Your task to perform on an android device: open app "Facebook" Image 0: 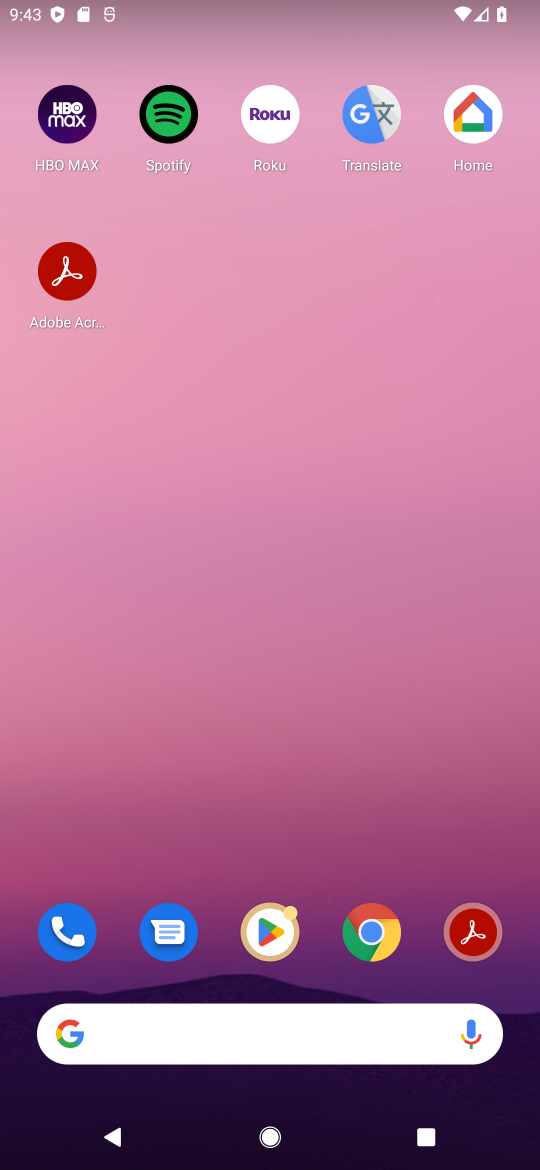
Step 0: click (282, 941)
Your task to perform on an android device: open app "Facebook" Image 1: 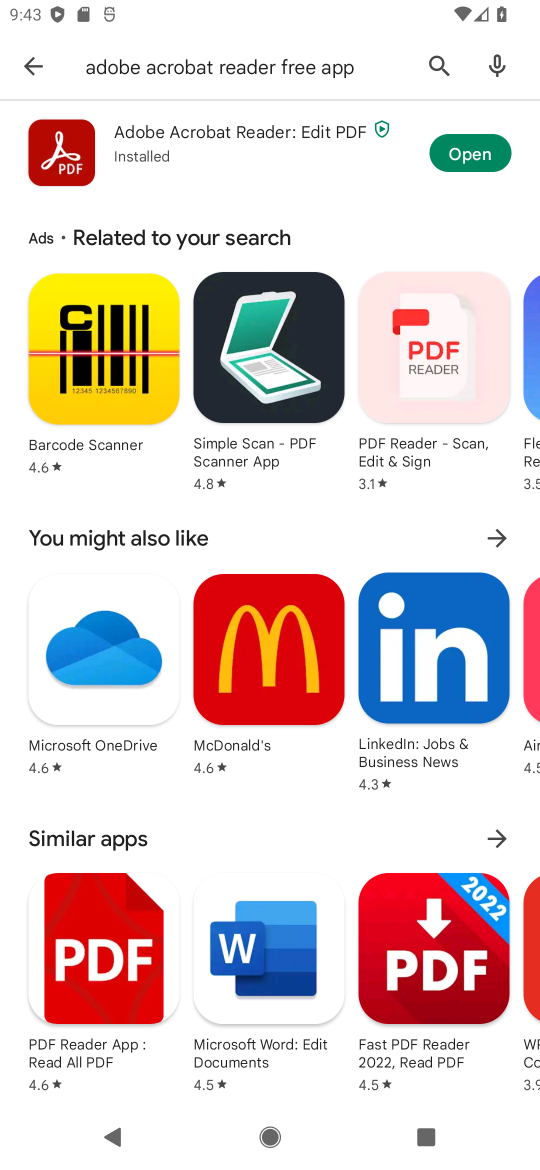
Step 1: click (430, 51)
Your task to perform on an android device: open app "Facebook" Image 2: 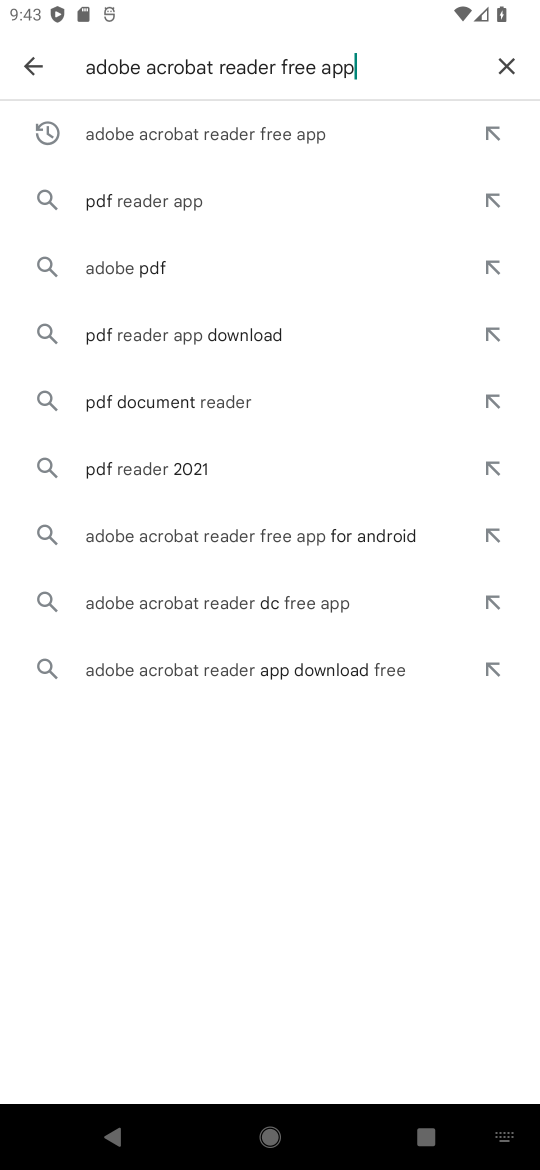
Step 2: click (525, 61)
Your task to perform on an android device: open app "Facebook" Image 3: 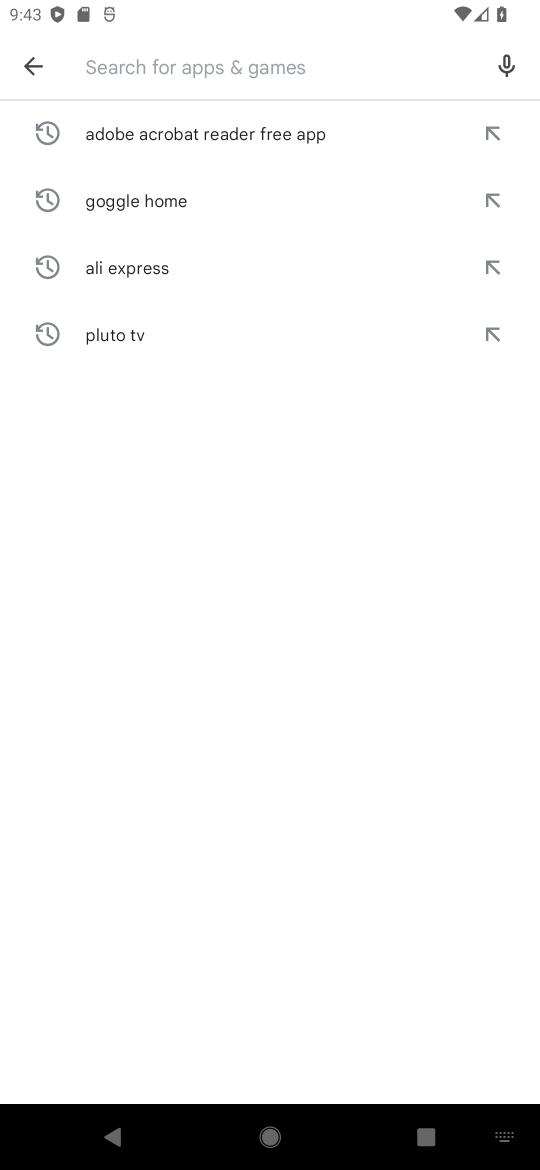
Step 3: click (116, 70)
Your task to perform on an android device: open app "Facebook" Image 4: 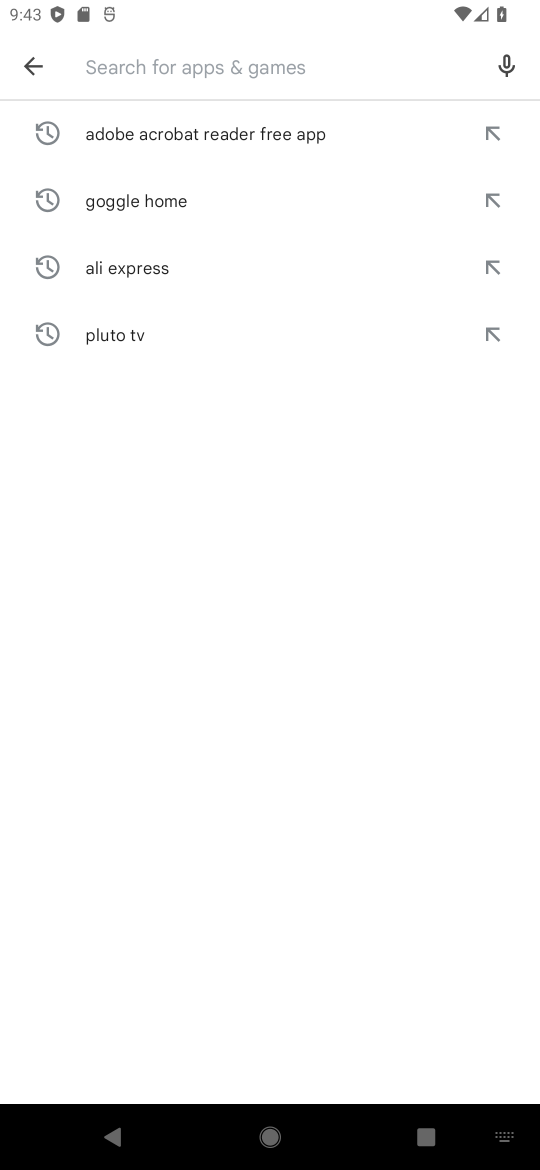
Step 4: type "facebook"
Your task to perform on an android device: open app "Facebook" Image 5: 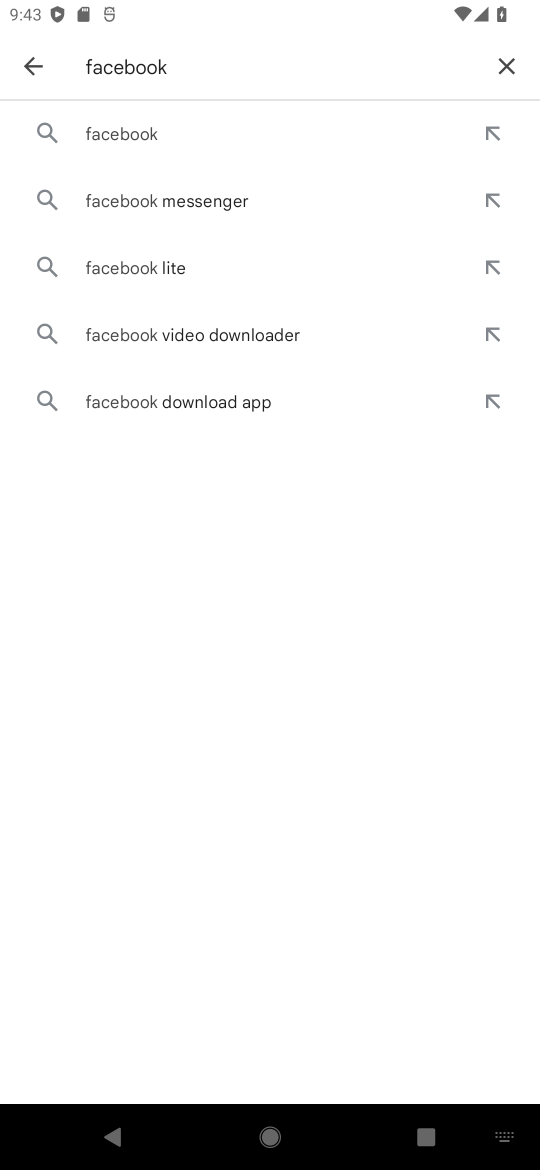
Step 5: click (141, 115)
Your task to perform on an android device: open app "Facebook" Image 6: 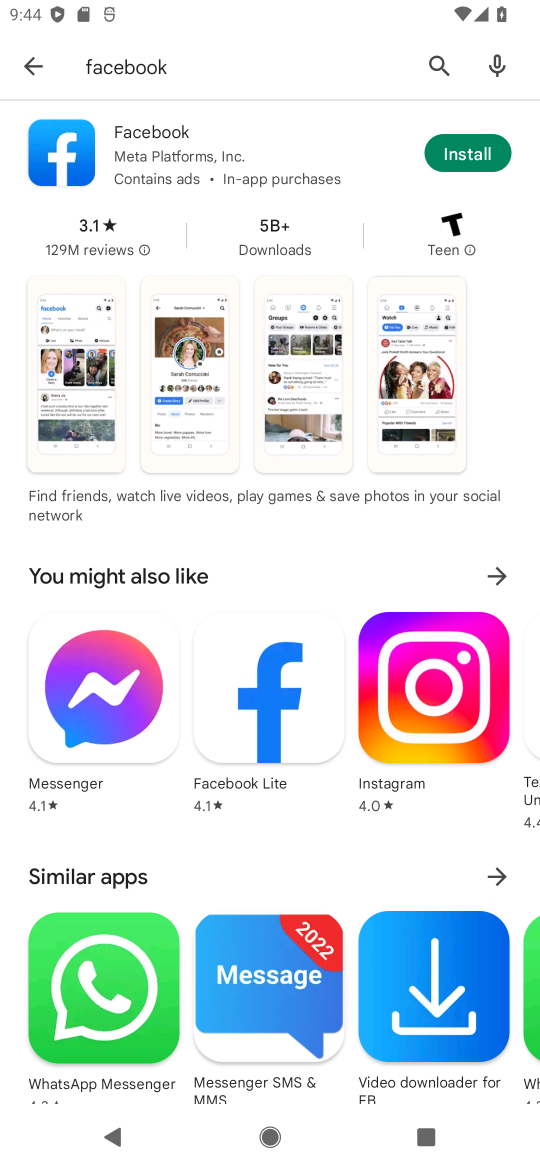
Step 6: task complete